Your task to perform on an android device: check android version Image 0: 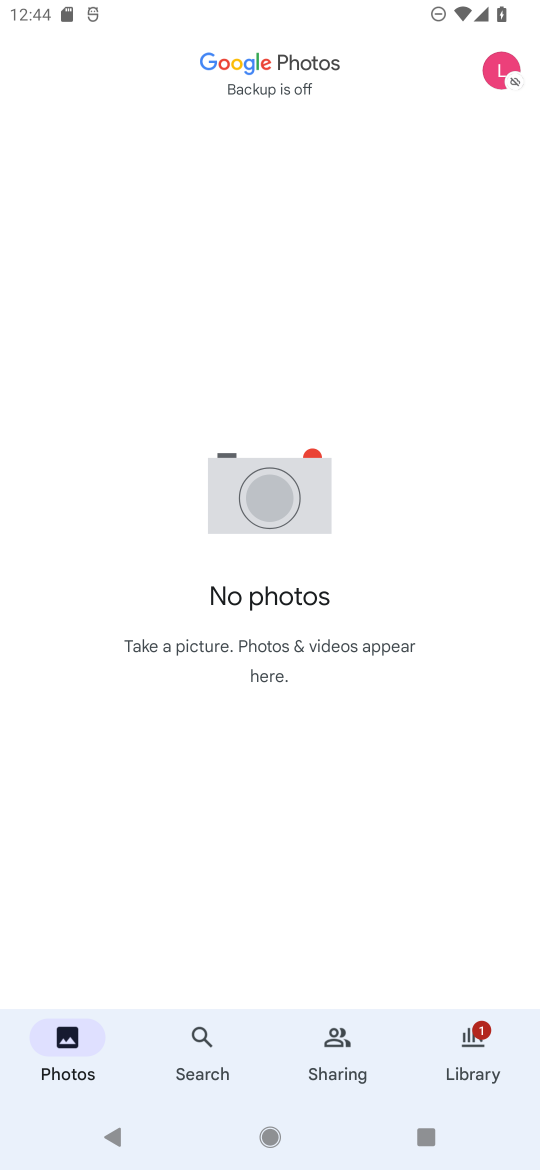
Step 0: press home button
Your task to perform on an android device: check android version Image 1: 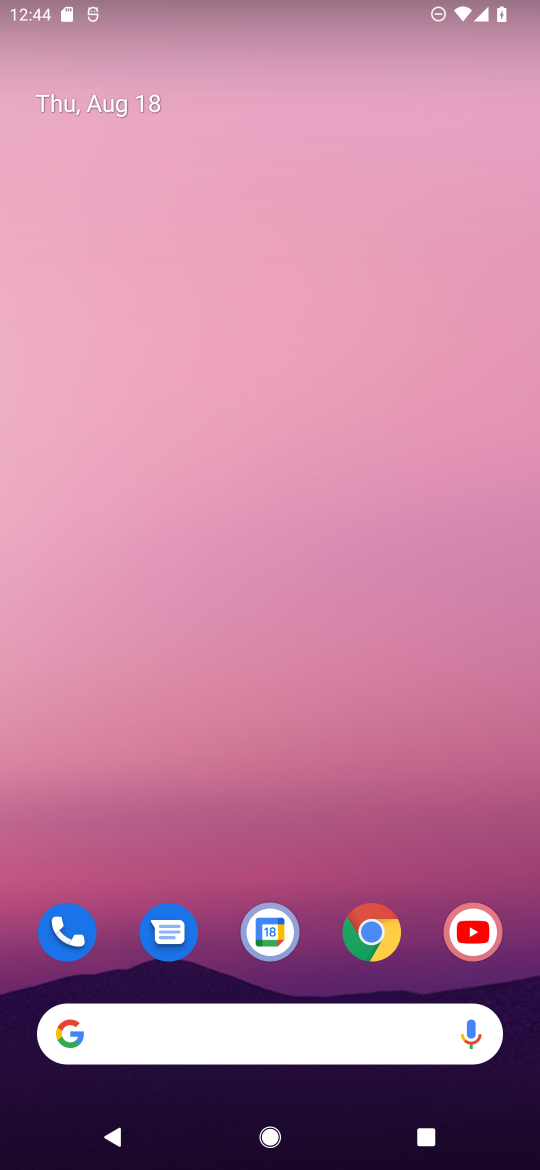
Step 1: drag from (284, 835) to (258, 156)
Your task to perform on an android device: check android version Image 2: 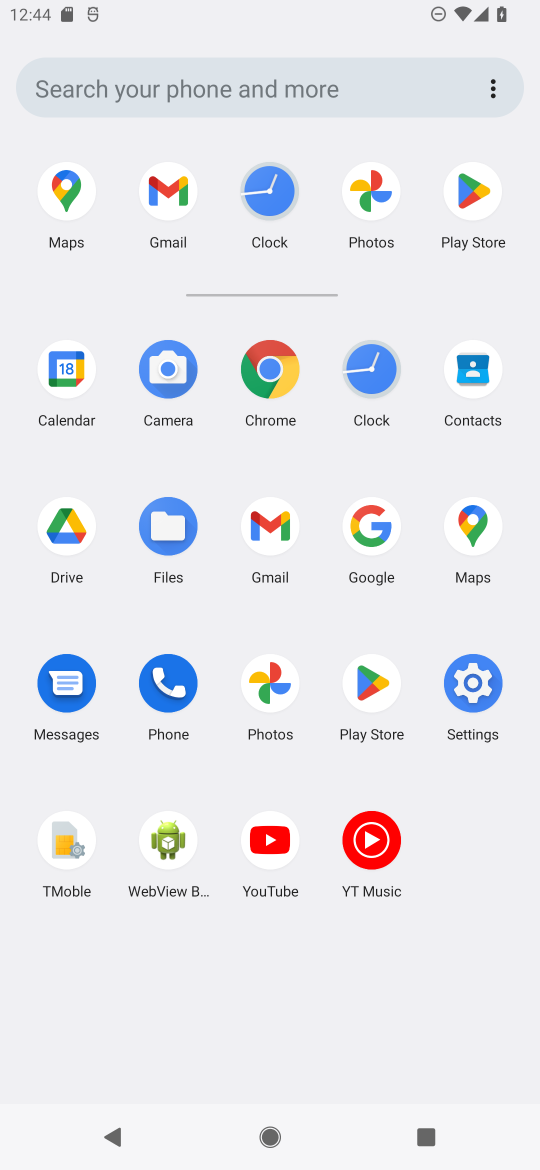
Step 2: click (469, 684)
Your task to perform on an android device: check android version Image 3: 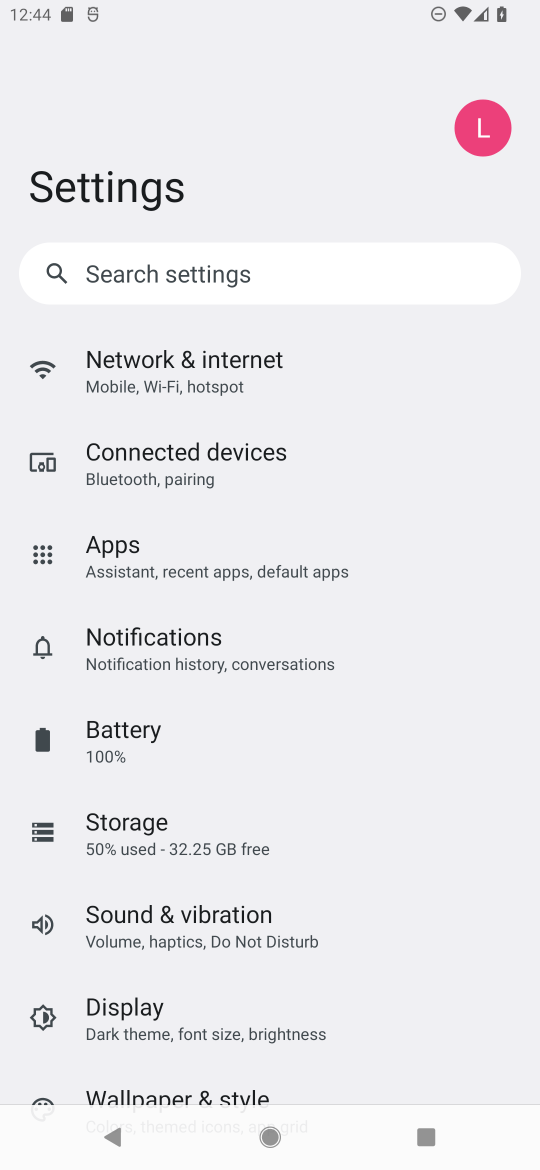
Step 3: drag from (291, 994) to (247, 401)
Your task to perform on an android device: check android version Image 4: 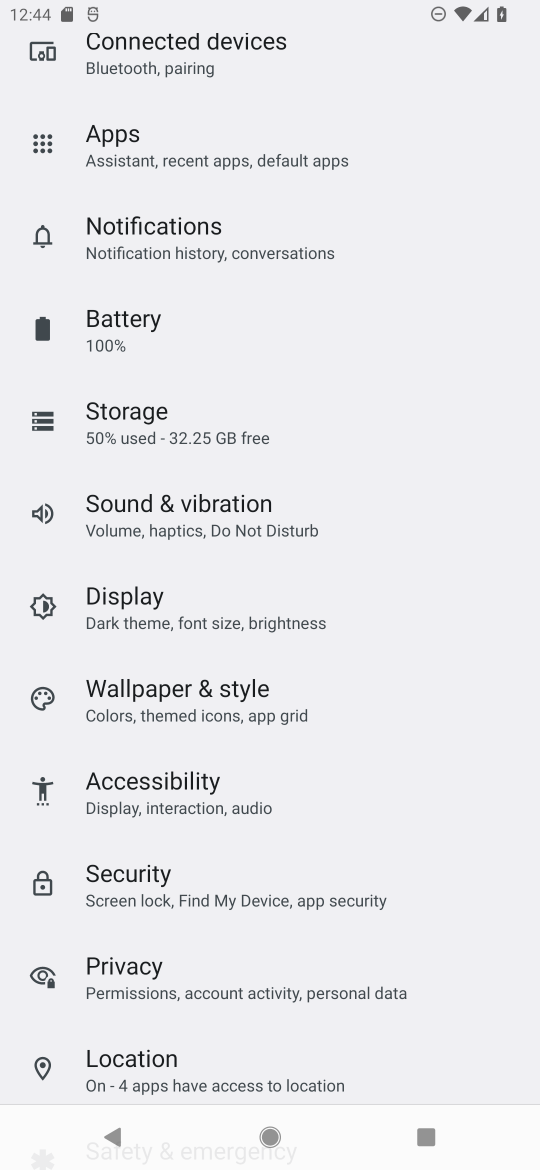
Step 4: drag from (347, 983) to (347, 591)
Your task to perform on an android device: check android version Image 5: 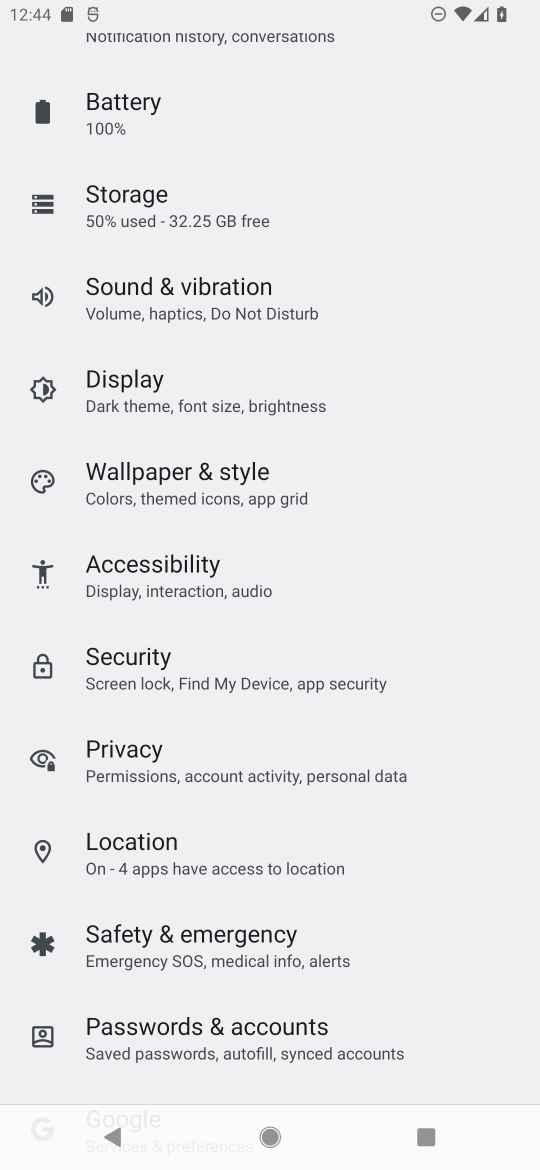
Step 5: drag from (403, 922) to (367, 394)
Your task to perform on an android device: check android version Image 6: 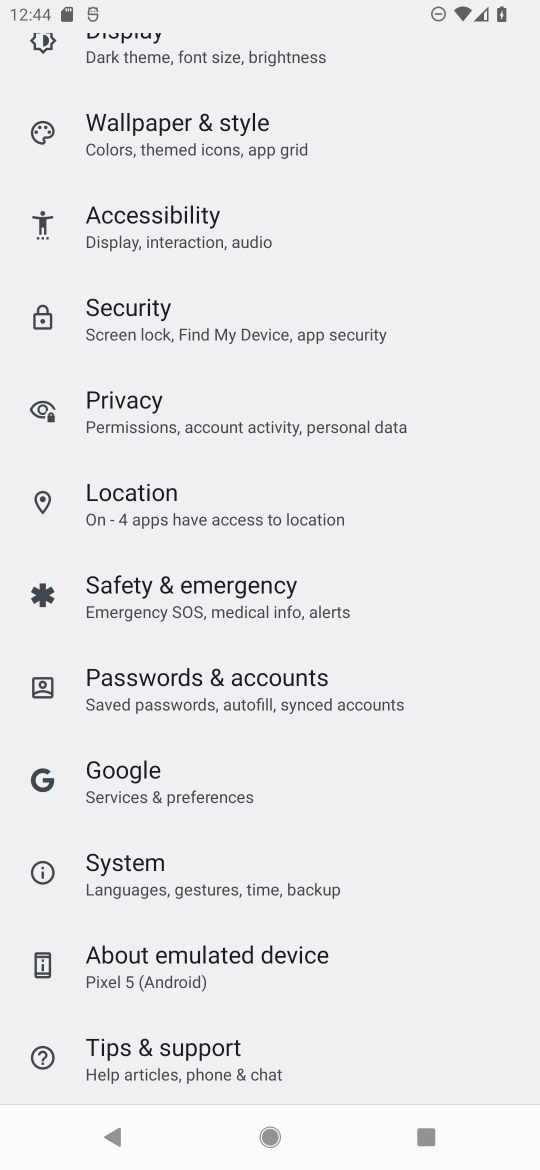
Step 6: click (177, 953)
Your task to perform on an android device: check android version Image 7: 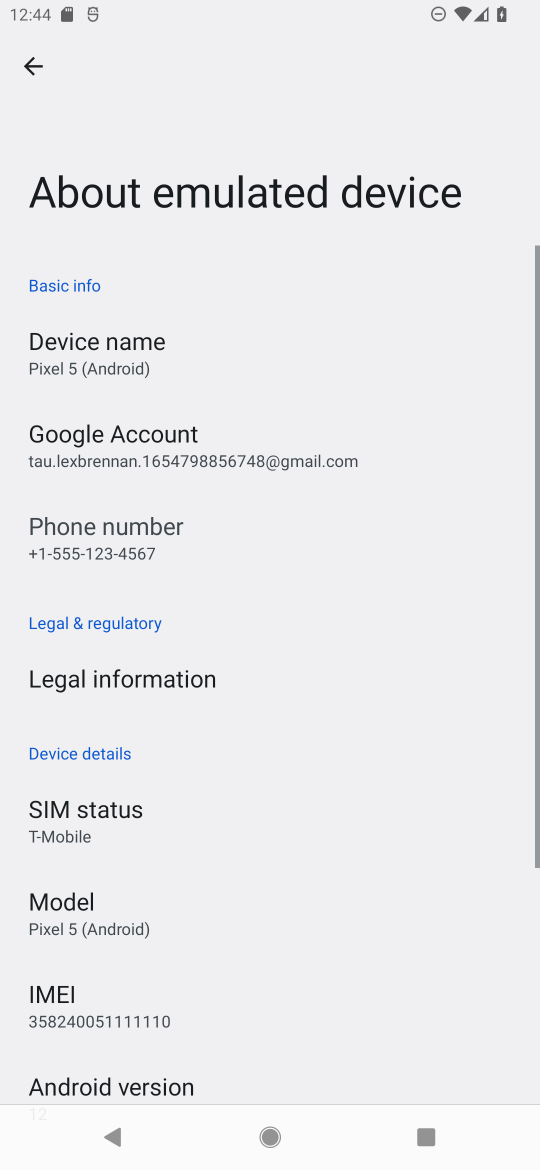
Step 7: task complete